Your task to perform on an android device: Open my contact list Image 0: 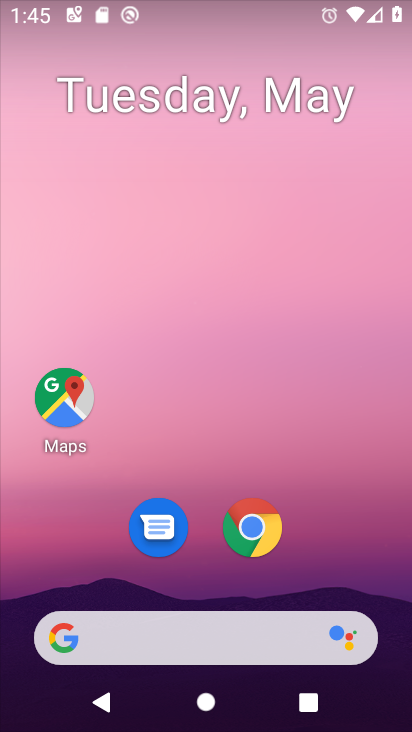
Step 0: drag from (239, 711) to (193, 26)
Your task to perform on an android device: Open my contact list Image 1: 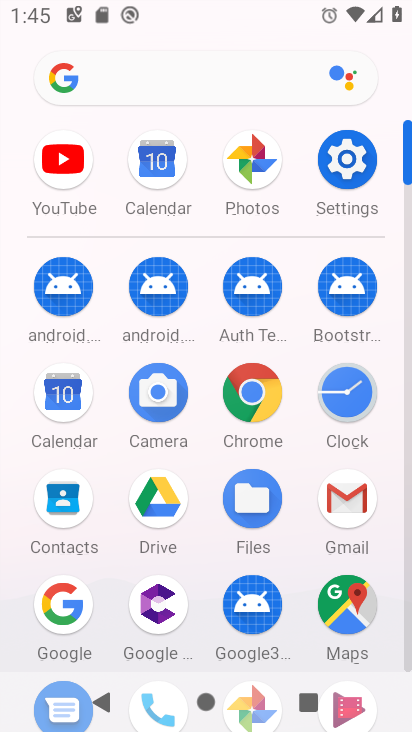
Step 1: drag from (265, 583) to (312, 161)
Your task to perform on an android device: Open my contact list Image 2: 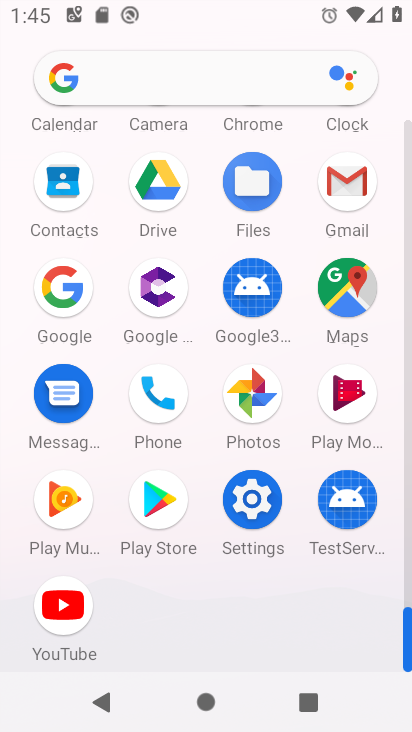
Step 2: click (67, 206)
Your task to perform on an android device: Open my contact list Image 3: 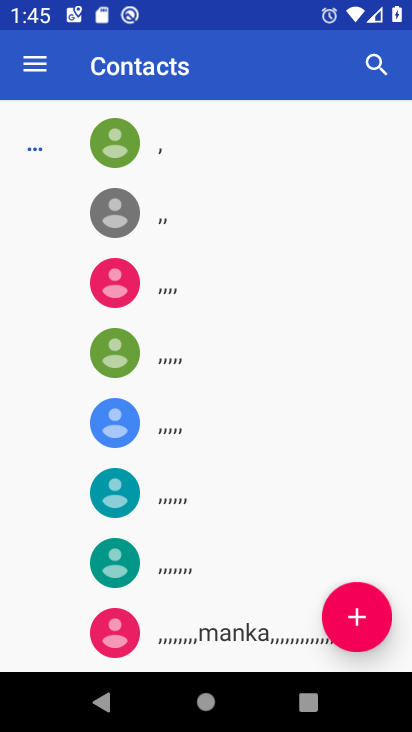
Step 3: task complete